Your task to perform on an android device: toggle wifi Image 0: 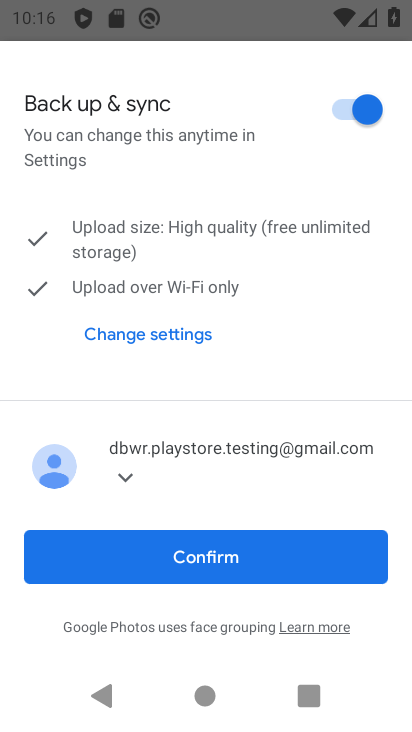
Step 0: press home button
Your task to perform on an android device: toggle wifi Image 1: 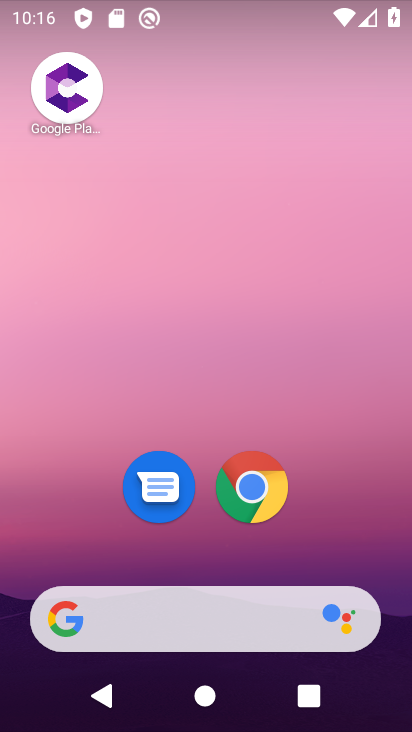
Step 1: drag from (356, 8) to (308, 364)
Your task to perform on an android device: toggle wifi Image 2: 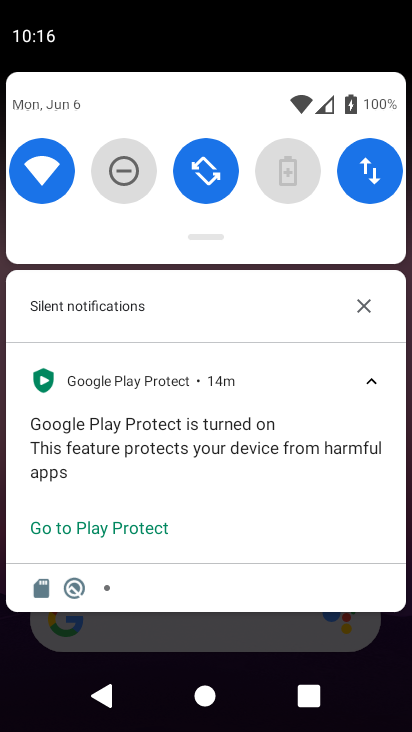
Step 2: click (52, 173)
Your task to perform on an android device: toggle wifi Image 3: 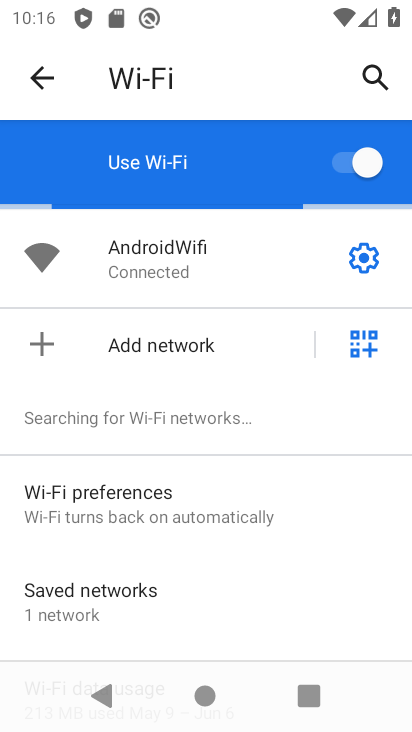
Step 3: click (332, 165)
Your task to perform on an android device: toggle wifi Image 4: 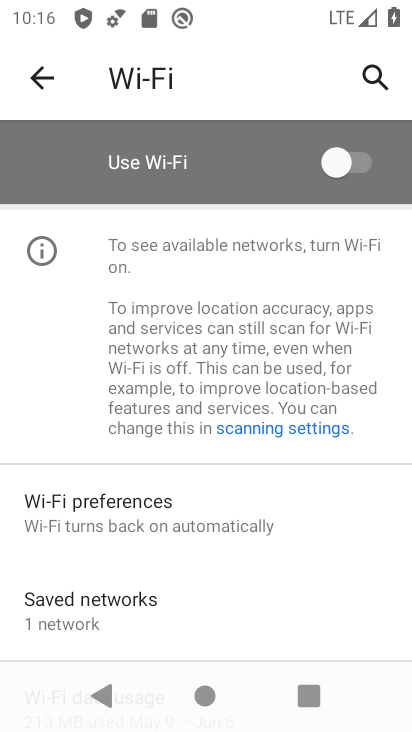
Step 4: task complete